Your task to perform on an android device: toggle notifications settings in the gmail app Image 0: 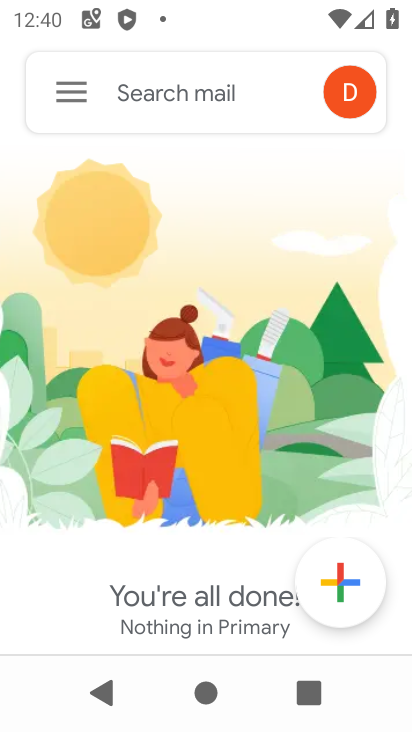
Step 0: click (76, 90)
Your task to perform on an android device: toggle notifications settings in the gmail app Image 1: 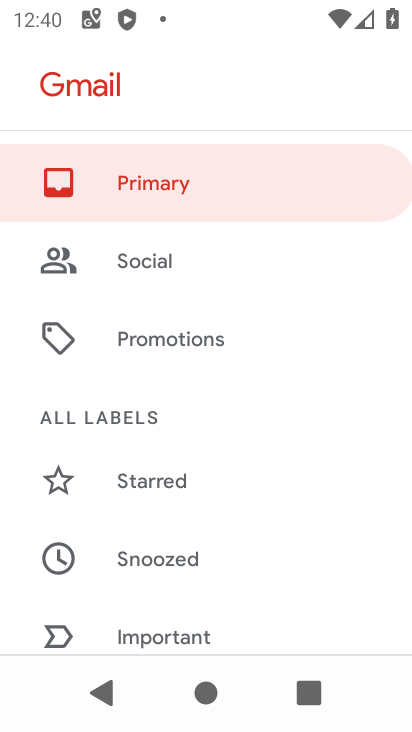
Step 1: drag from (208, 586) to (189, 13)
Your task to perform on an android device: toggle notifications settings in the gmail app Image 2: 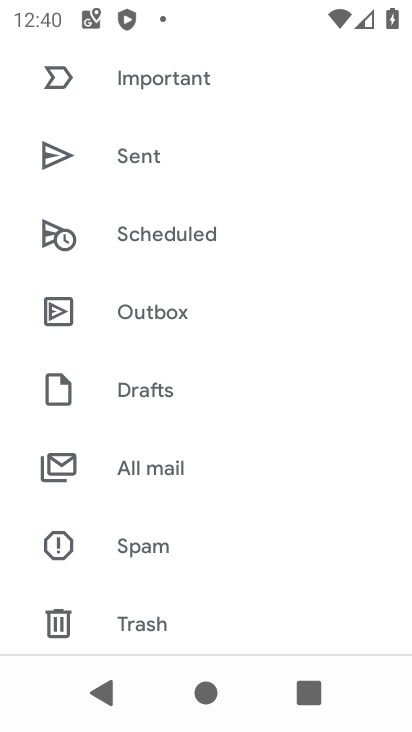
Step 2: drag from (157, 579) to (132, 284)
Your task to perform on an android device: toggle notifications settings in the gmail app Image 3: 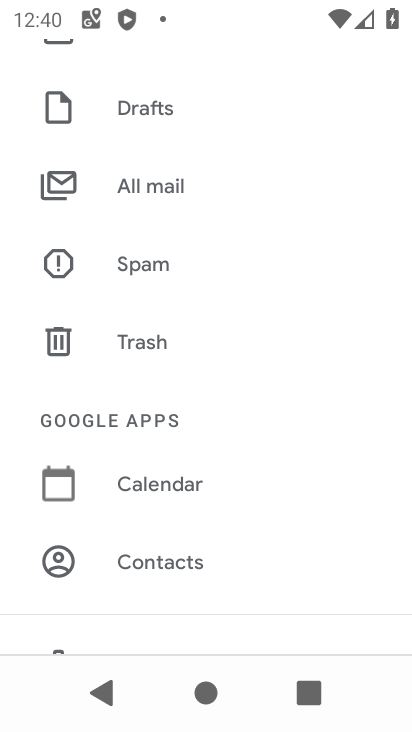
Step 3: drag from (198, 604) to (165, 241)
Your task to perform on an android device: toggle notifications settings in the gmail app Image 4: 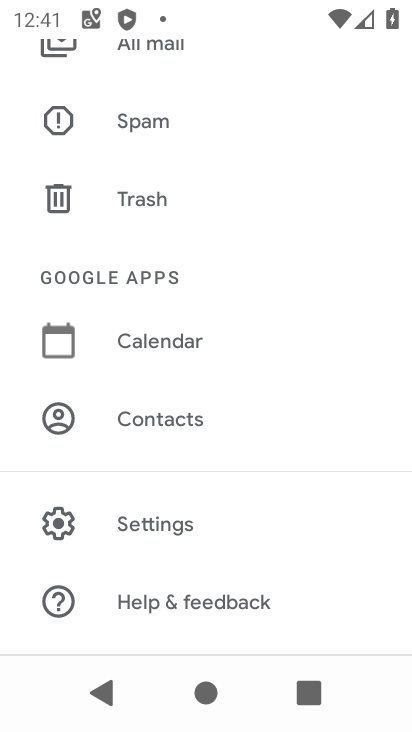
Step 4: click (200, 522)
Your task to perform on an android device: toggle notifications settings in the gmail app Image 5: 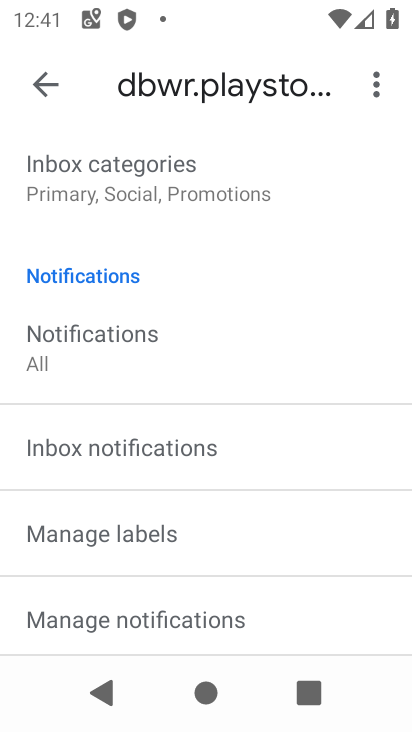
Step 5: click (205, 610)
Your task to perform on an android device: toggle notifications settings in the gmail app Image 6: 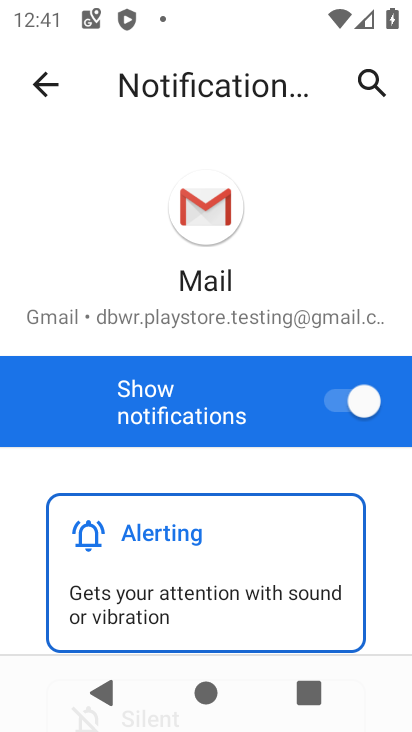
Step 6: drag from (205, 610) to (178, 315)
Your task to perform on an android device: toggle notifications settings in the gmail app Image 7: 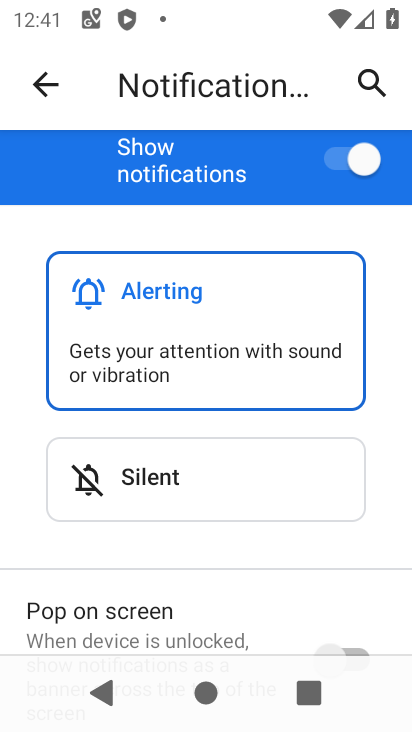
Step 7: click (292, 477)
Your task to perform on an android device: toggle notifications settings in the gmail app Image 8: 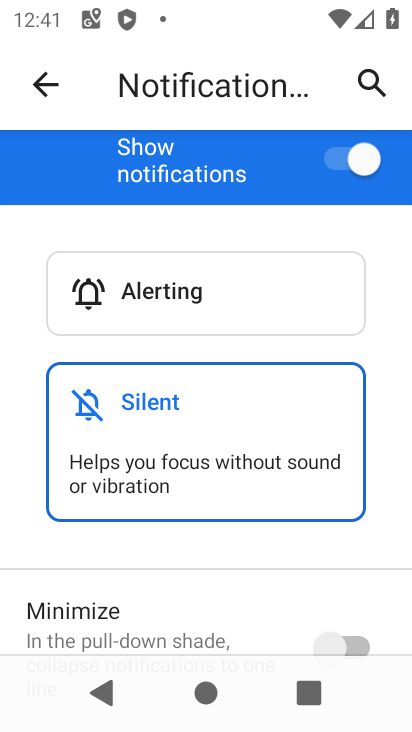
Step 8: drag from (400, 552) to (389, 336)
Your task to perform on an android device: toggle notifications settings in the gmail app Image 9: 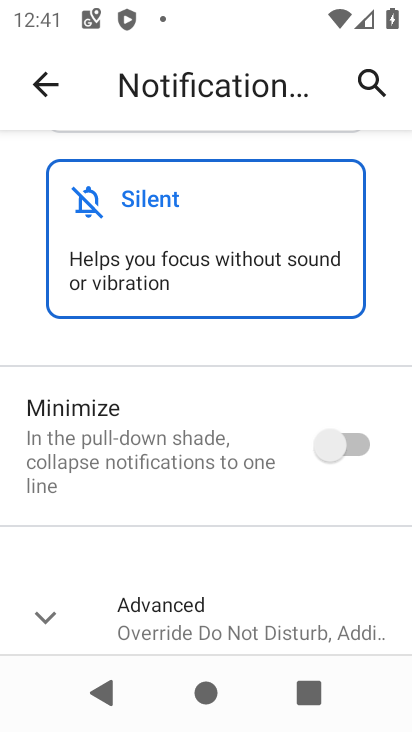
Step 9: click (358, 454)
Your task to perform on an android device: toggle notifications settings in the gmail app Image 10: 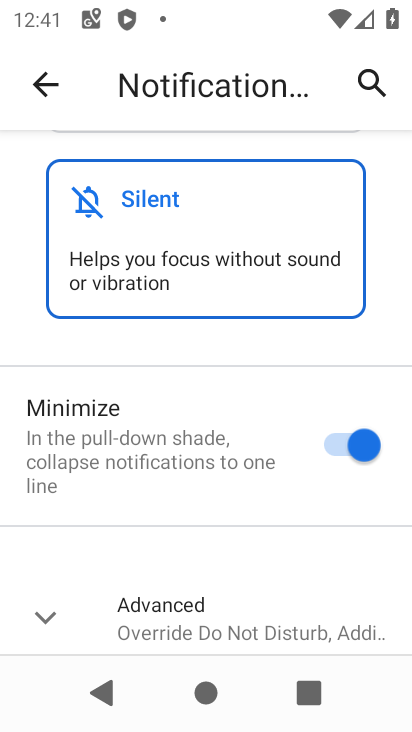
Step 10: task complete